Your task to perform on an android device: turn pop-ups off in chrome Image 0: 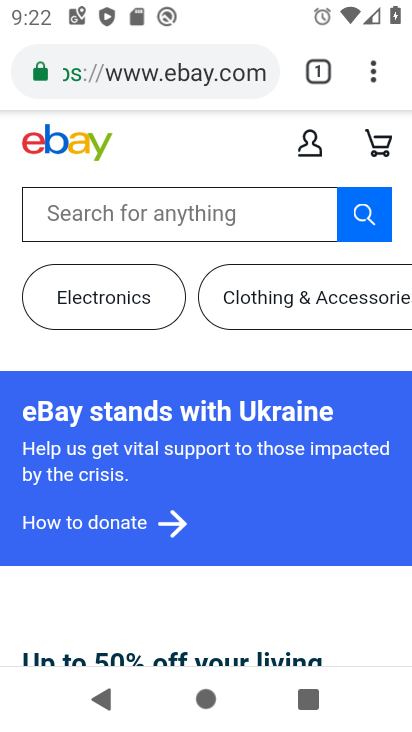
Step 0: click (374, 76)
Your task to perform on an android device: turn pop-ups off in chrome Image 1: 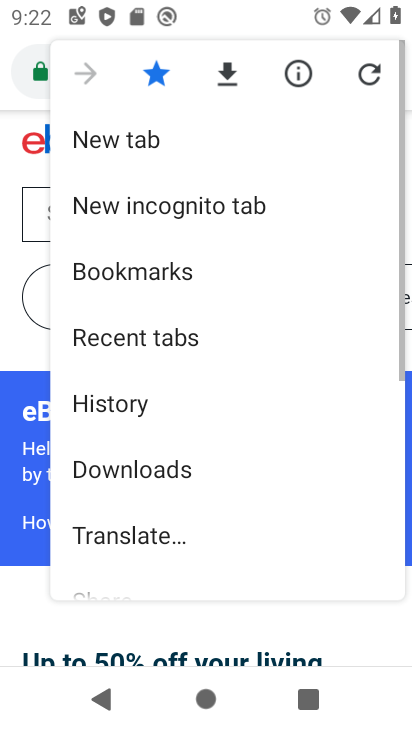
Step 1: drag from (188, 480) to (214, 85)
Your task to perform on an android device: turn pop-ups off in chrome Image 2: 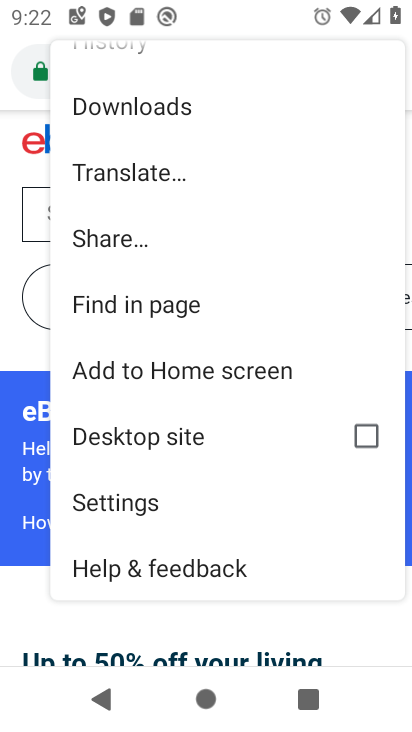
Step 2: drag from (190, 488) to (191, 147)
Your task to perform on an android device: turn pop-ups off in chrome Image 3: 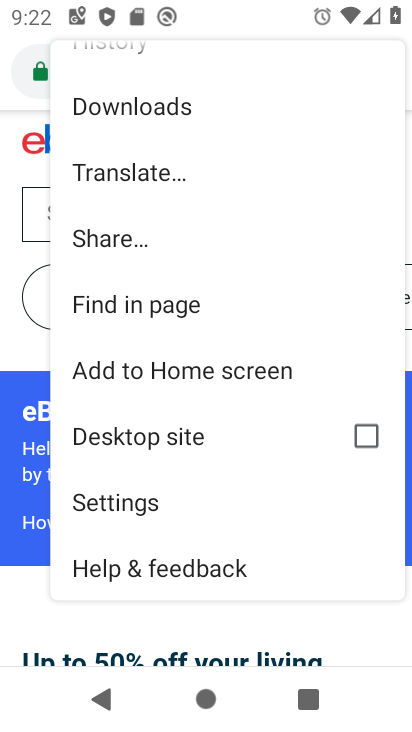
Step 3: click (107, 498)
Your task to perform on an android device: turn pop-ups off in chrome Image 4: 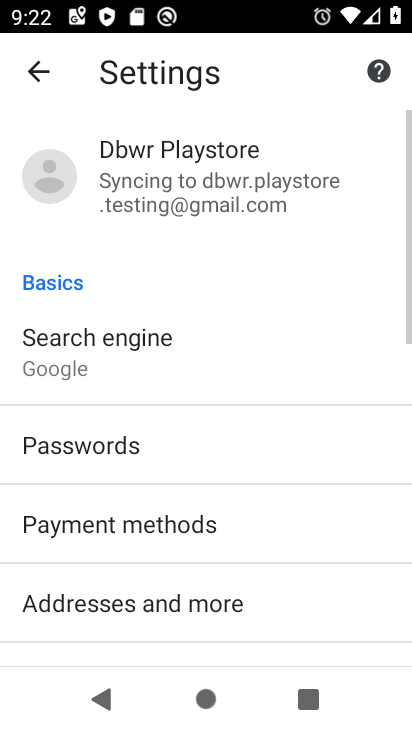
Step 4: drag from (192, 577) to (186, 156)
Your task to perform on an android device: turn pop-ups off in chrome Image 5: 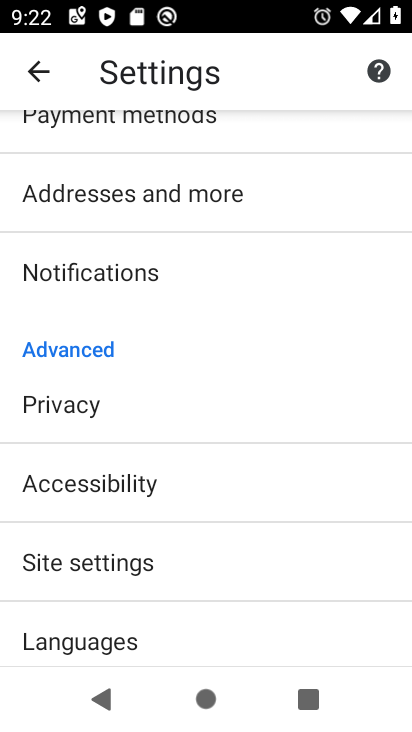
Step 5: click (144, 565)
Your task to perform on an android device: turn pop-ups off in chrome Image 6: 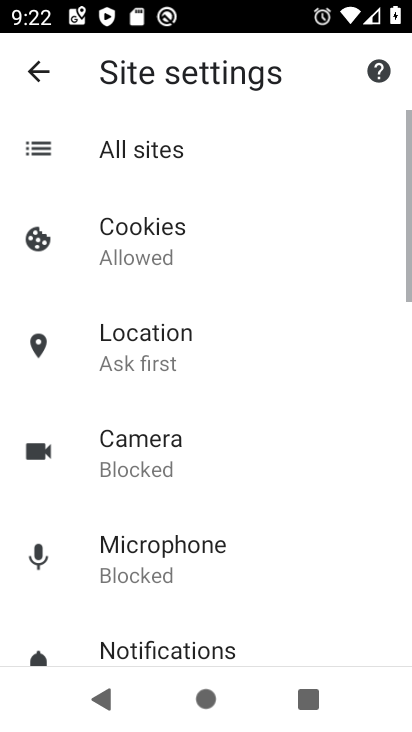
Step 6: drag from (229, 566) to (239, 205)
Your task to perform on an android device: turn pop-ups off in chrome Image 7: 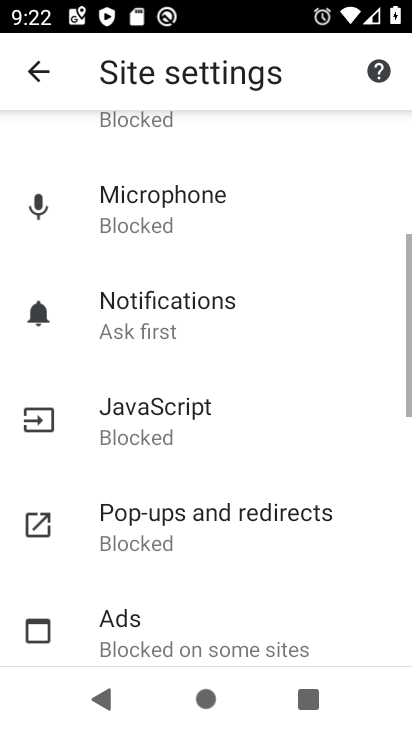
Step 7: click (171, 525)
Your task to perform on an android device: turn pop-ups off in chrome Image 8: 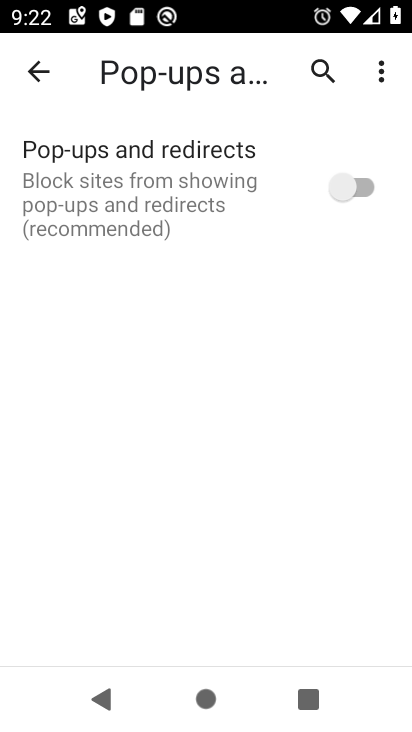
Step 8: task complete